Your task to perform on an android device: open device folders in google photos Image 0: 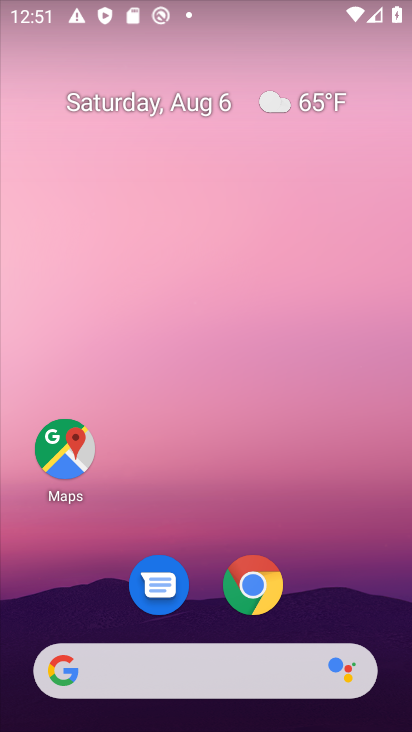
Step 0: drag from (217, 501) to (208, 23)
Your task to perform on an android device: open device folders in google photos Image 1: 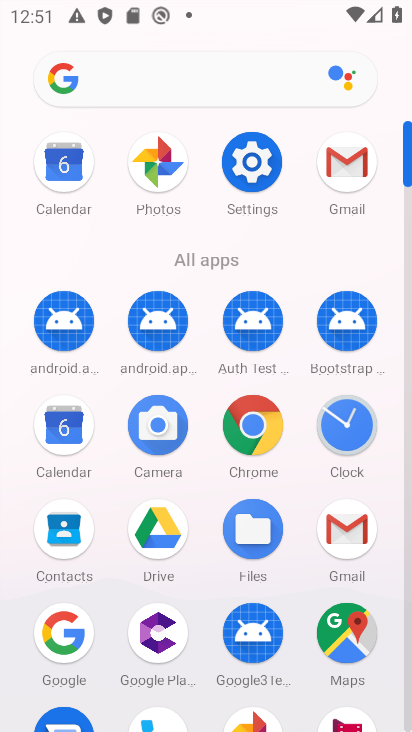
Step 1: click (164, 150)
Your task to perform on an android device: open device folders in google photos Image 2: 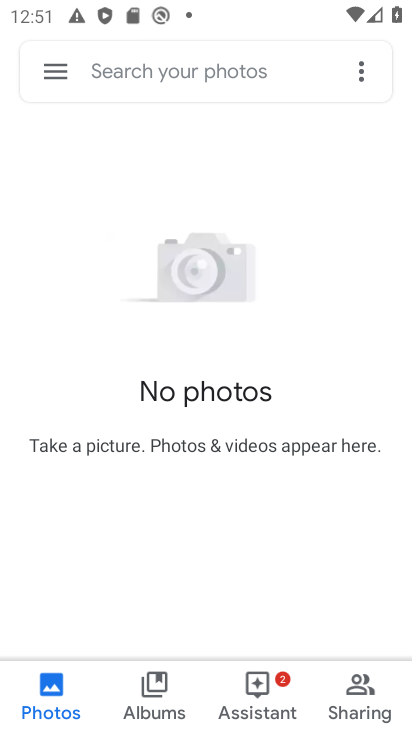
Step 2: click (60, 75)
Your task to perform on an android device: open device folders in google photos Image 3: 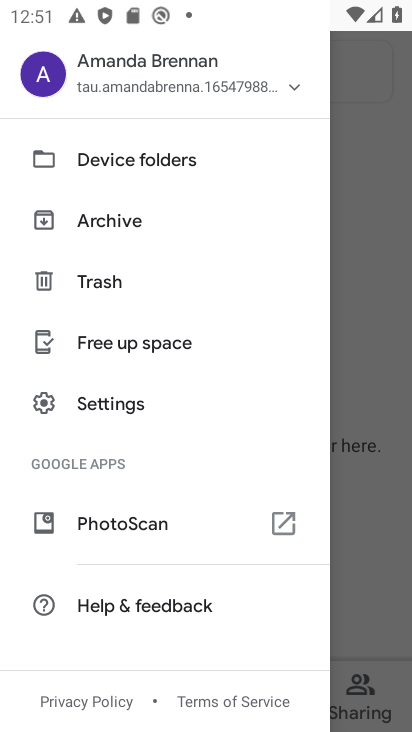
Step 3: click (96, 153)
Your task to perform on an android device: open device folders in google photos Image 4: 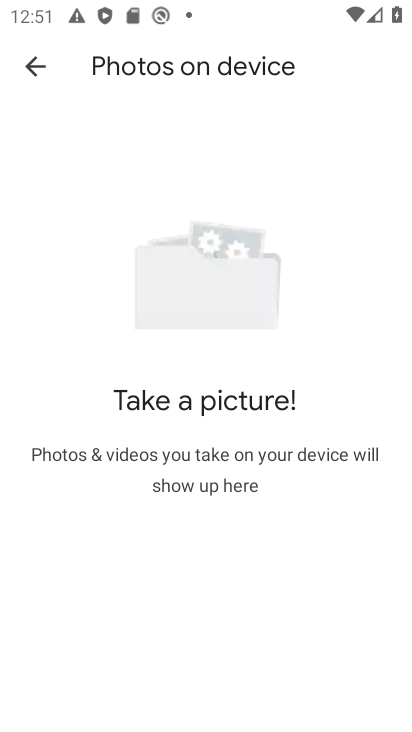
Step 4: task complete